Your task to perform on an android device: Open calendar and show me the fourth week of next month Image 0: 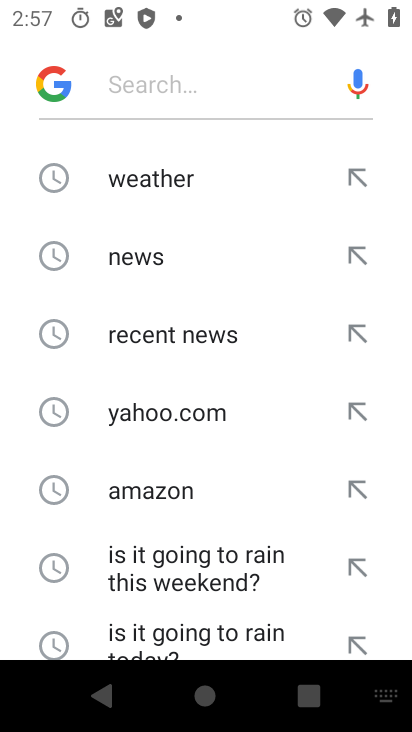
Step 0: press home button
Your task to perform on an android device: Open calendar and show me the fourth week of next month Image 1: 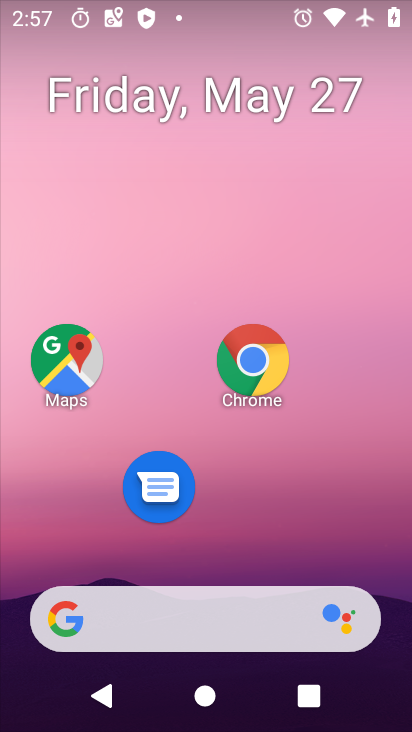
Step 1: drag from (252, 534) to (263, 79)
Your task to perform on an android device: Open calendar and show me the fourth week of next month Image 2: 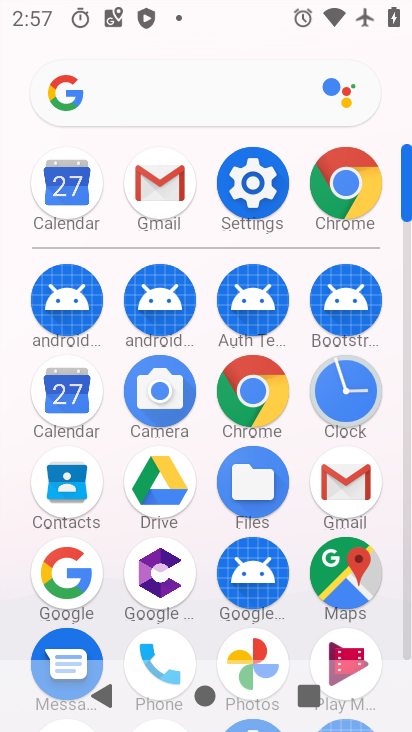
Step 2: click (67, 390)
Your task to perform on an android device: Open calendar and show me the fourth week of next month Image 3: 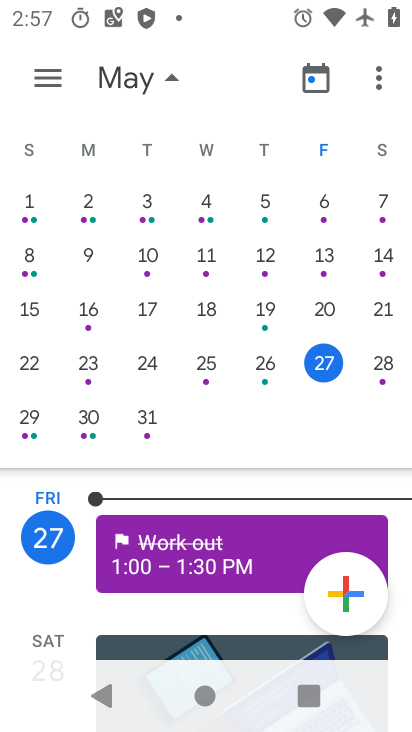
Step 3: drag from (398, 438) to (4, 429)
Your task to perform on an android device: Open calendar and show me the fourth week of next month Image 4: 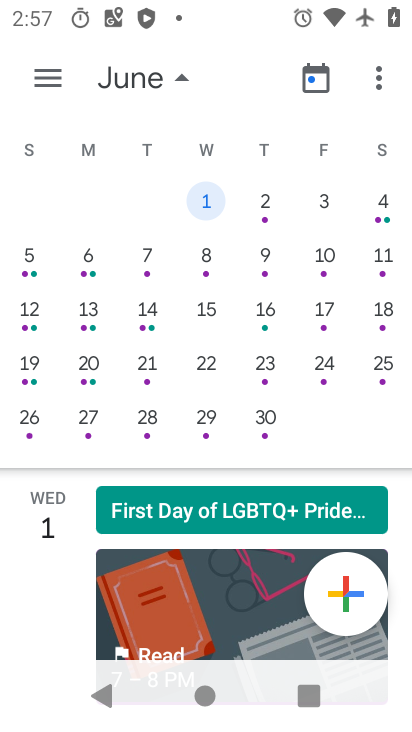
Step 4: click (210, 366)
Your task to perform on an android device: Open calendar and show me the fourth week of next month Image 5: 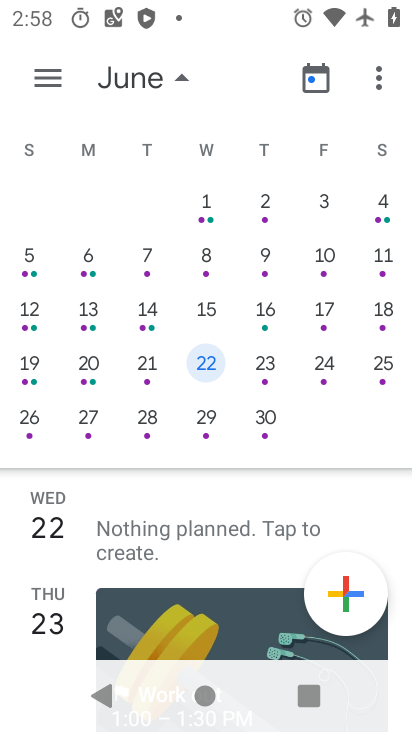
Step 5: task complete